Your task to perform on an android device: Open CNN.com Image 0: 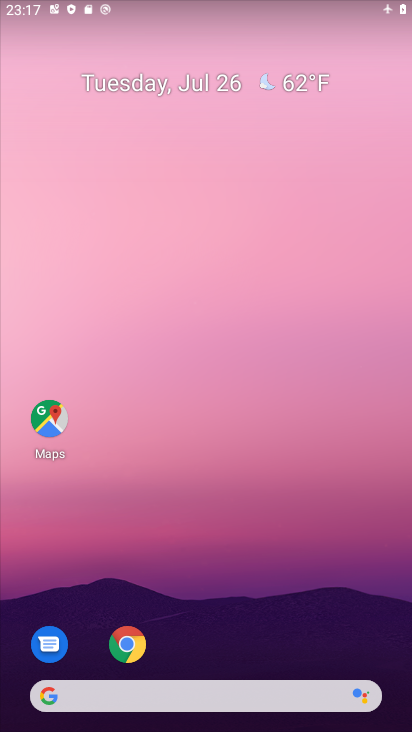
Step 0: click (129, 653)
Your task to perform on an android device: Open CNN.com Image 1: 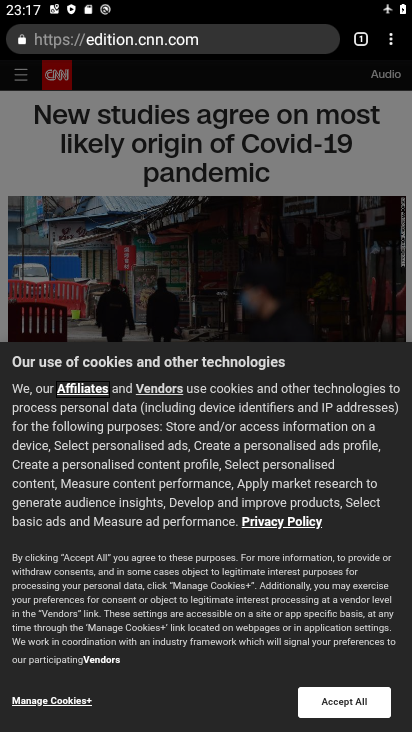
Step 1: task complete